Your task to perform on an android device: Go to Maps Image 0: 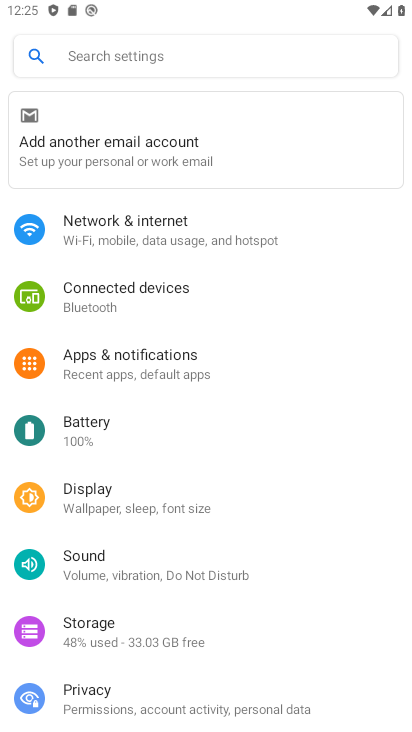
Step 0: press home button
Your task to perform on an android device: Go to Maps Image 1: 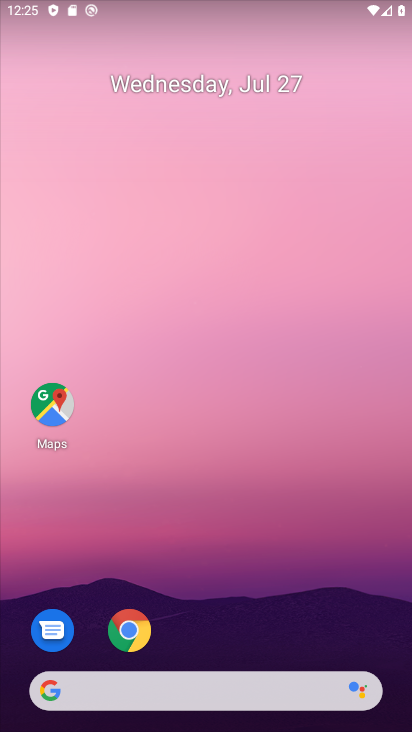
Step 1: click (54, 393)
Your task to perform on an android device: Go to Maps Image 2: 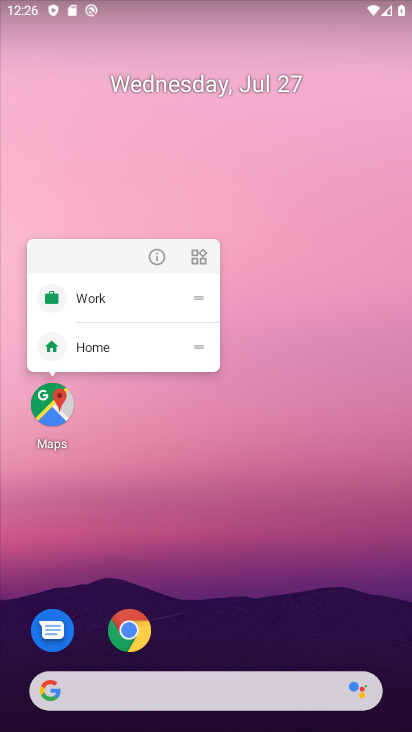
Step 2: click (43, 396)
Your task to perform on an android device: Go to Maps Image 3: 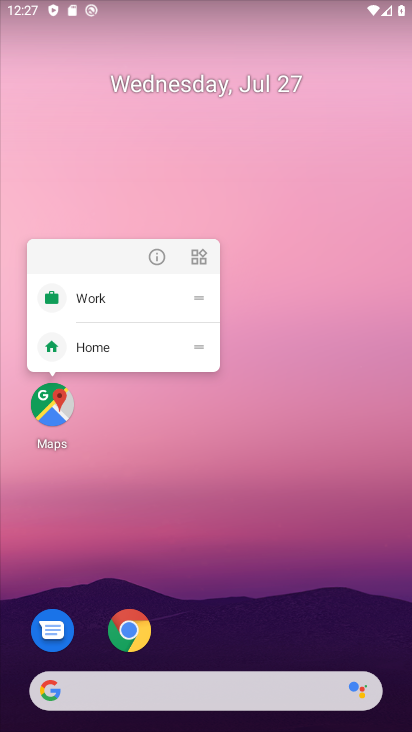
Step 3: click (68, 402)
Your task to perform on an android device: Go to Maps Image 4: 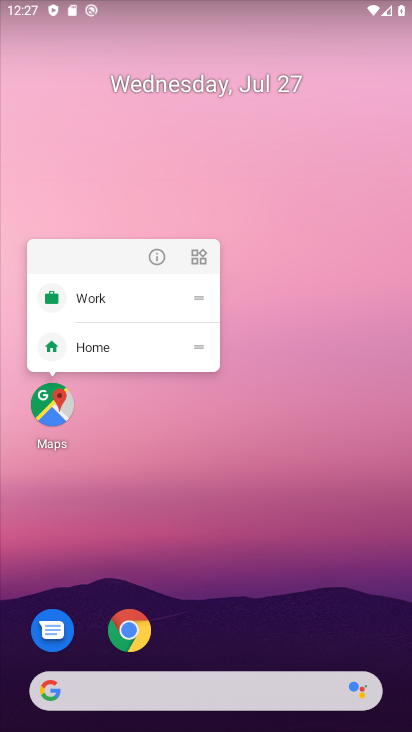
Step 4: click (52, 408)
Your task to perform on an android device: Go to Maps Image 5: 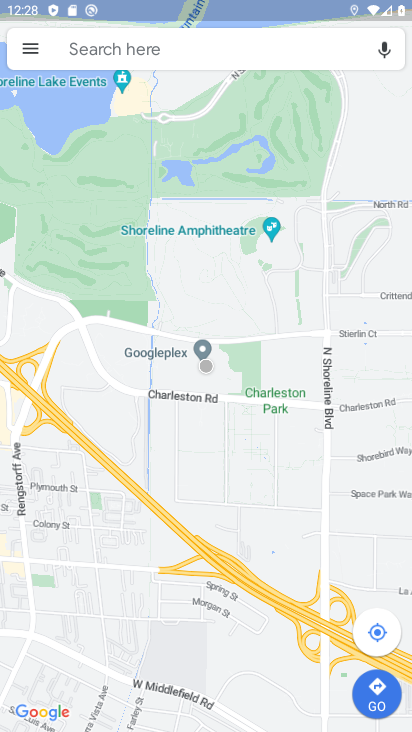
Step 5: task complete